Your task to perform on an android device: find photos in the google photos app Image 0: 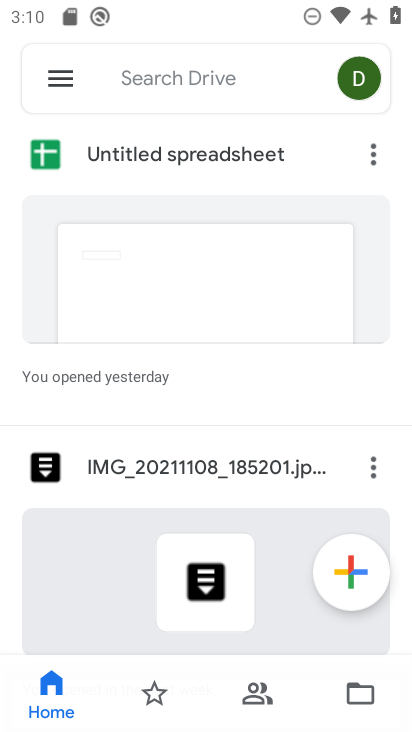
Step 0: press home button
Your task to perform on an android device: find photos in the google photos app Image 1: 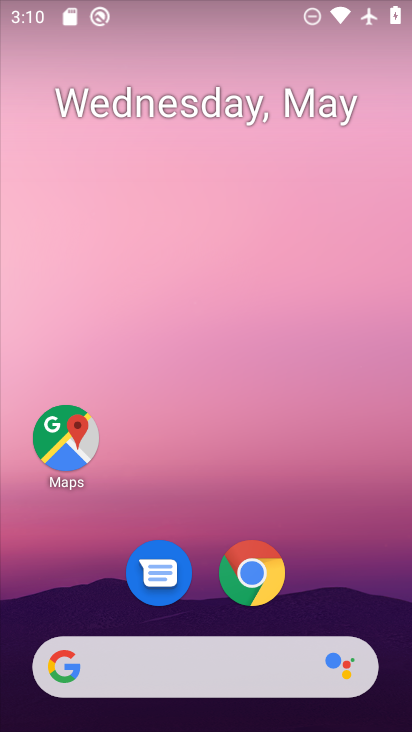
Step 1: drag from (332, 605) to (378, 64)
Your task to perform on an android device: find photos in the google photos app Image 2: 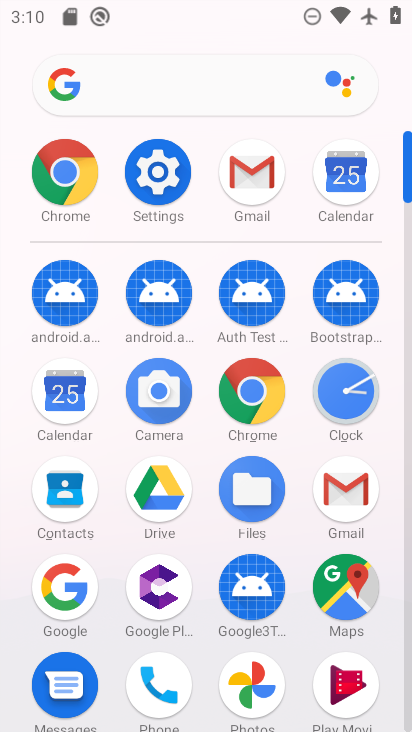
Step 2: click (254, 673)
Your task to perform on an android device: find photos in the google photos app Image 3: 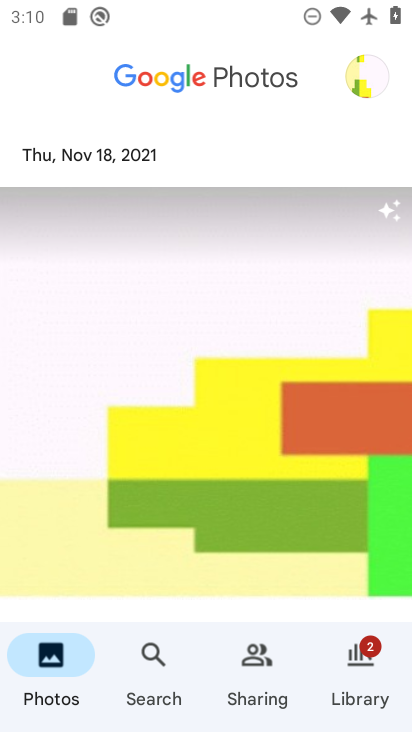
Step 3: task complete